Your task to perform on an android device: Open ESPN.com Image 0: 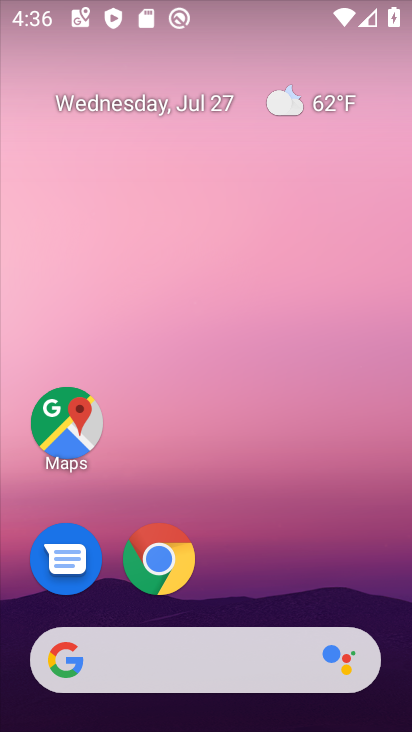
Step 0: click (168, 567)
Your task to perform on an android device: Open ESPN.com Image 1: 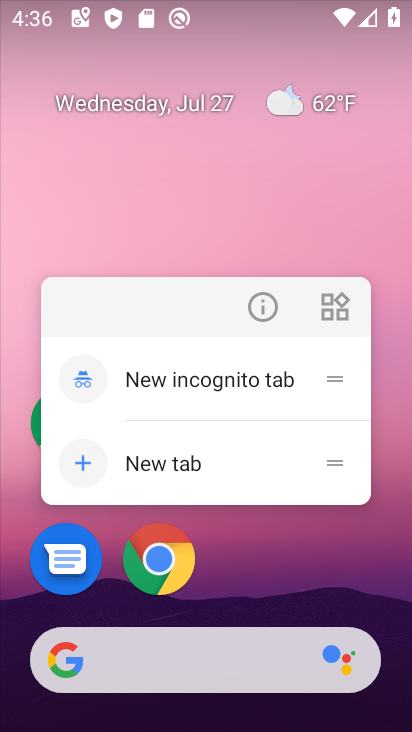
Step 1: click (155, 572)
Your task to perform on an android device: Open ESPN.com Image 2: 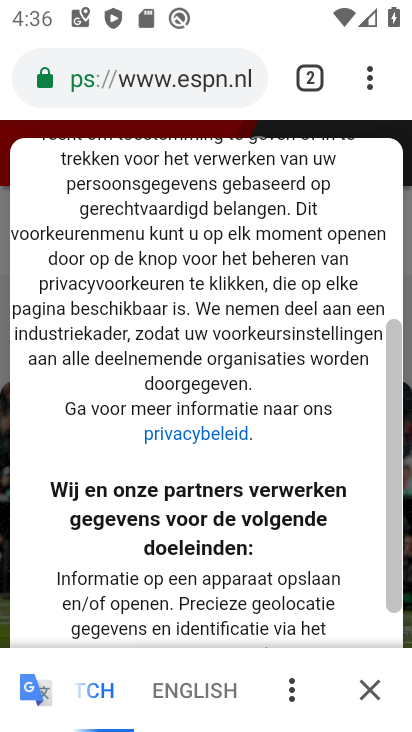
Step 2: task complete